Your task to perform on an android device: install app "AliExpress" Image 0: 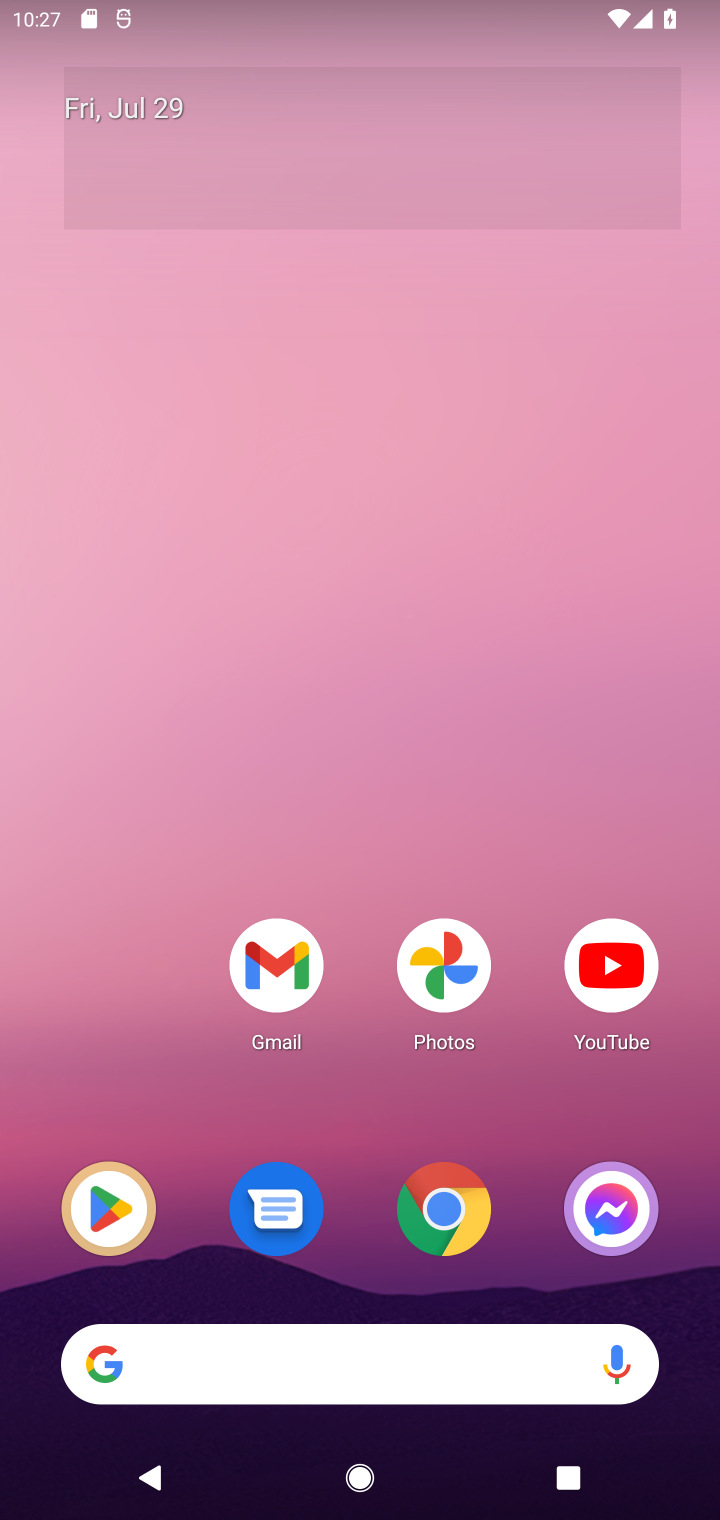
Step 0: drag from (551, 865) to (594, 28)
Your task to perform on an android device: install app "AliExpress" Image 1: 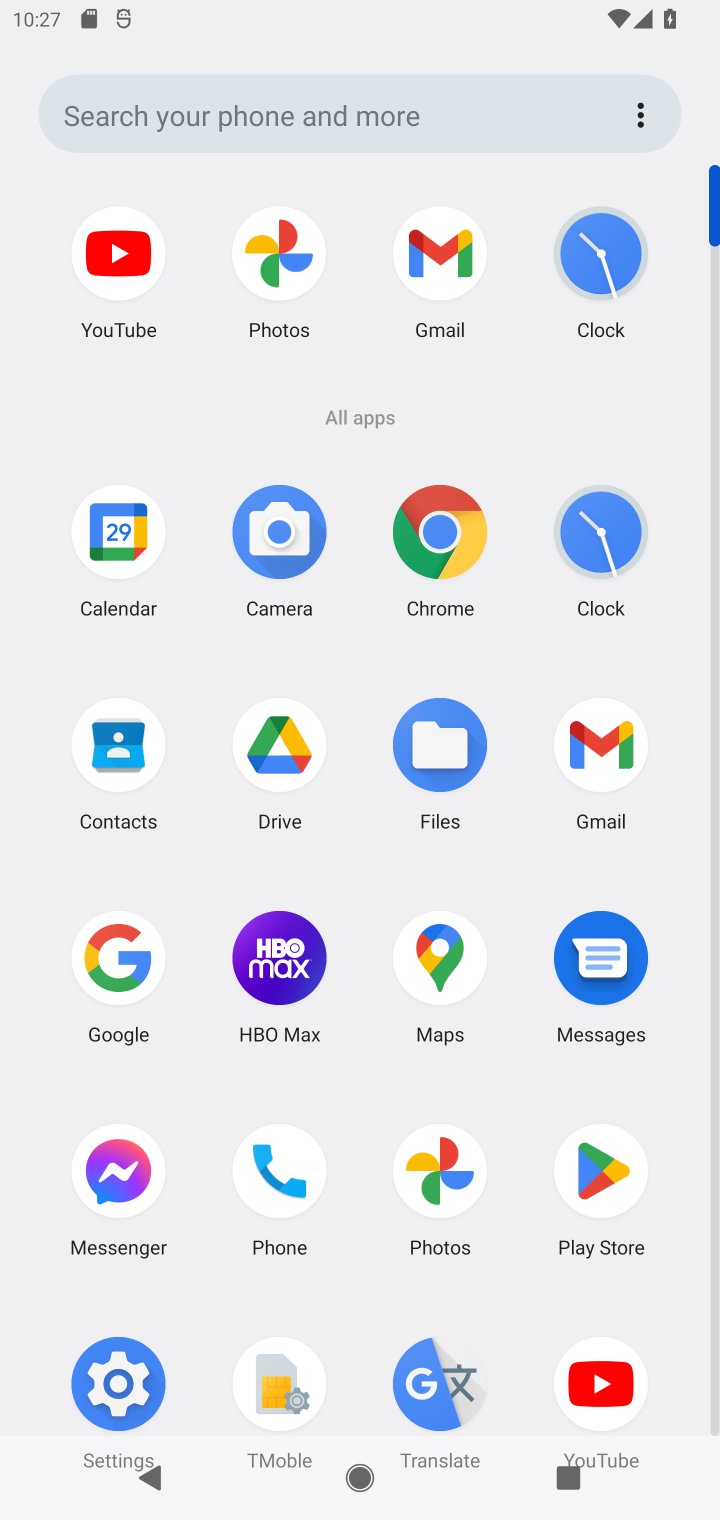
Step 1: click (608, 1171)
Your task to perform on an android device: install app "AliExpress" Image 2: 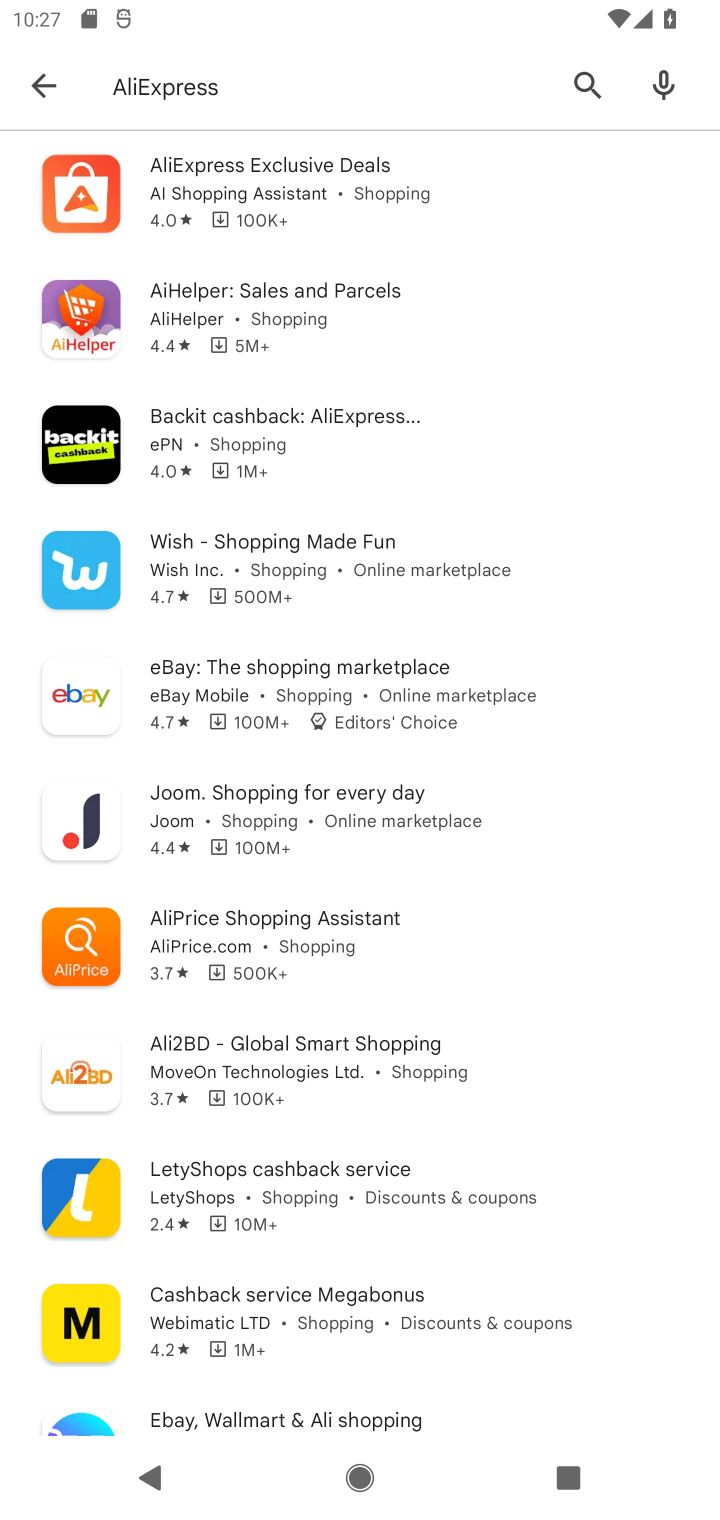
Step 2: task complete